Your task to perform on an android device: What is the news today? Image 0: 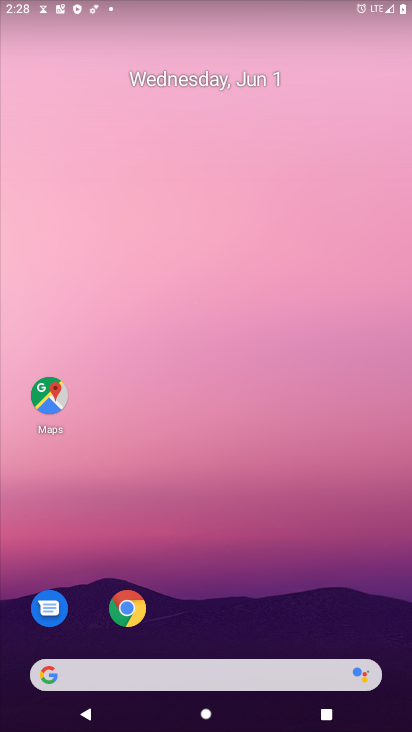
Step 0: click (188, 670)
Your task to perform on an android device: What is the news today? Image 1: 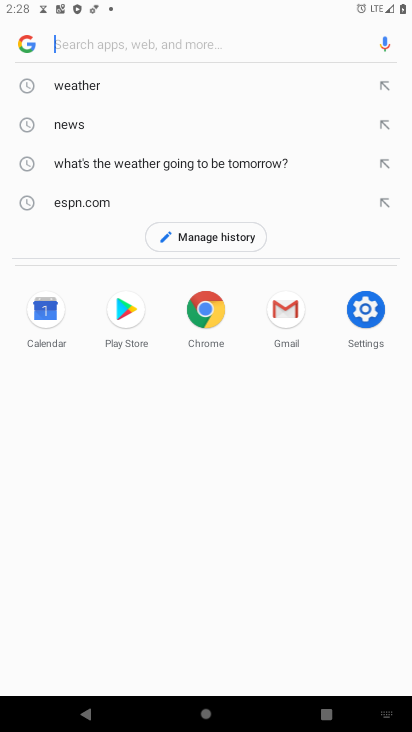
Step 1: type "news today"
Your task to perform on an android device: What is the news today? Image 2: 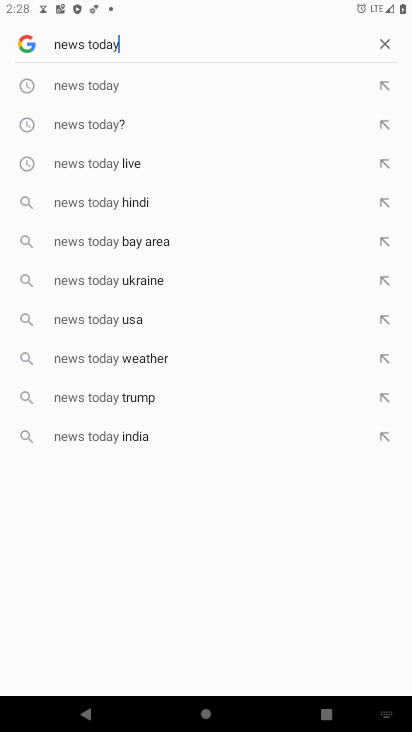
Step 2: click (74, 81)
Your task to perform on an android device: What is the news today? Image 3: 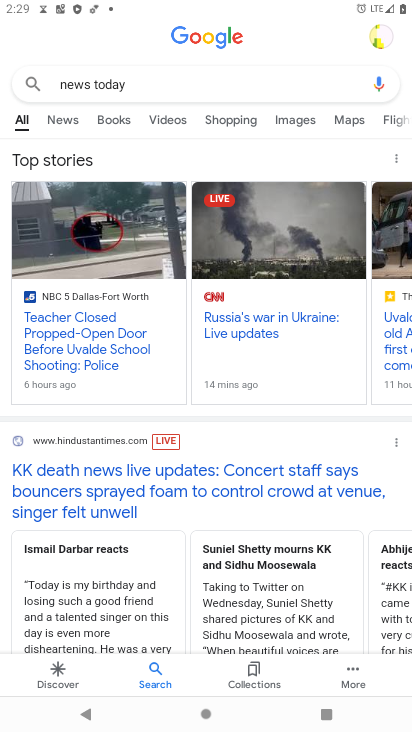
Step 3: task complete